Your task to perform on an android device: What's the weather going to be this weekend? Image 0: 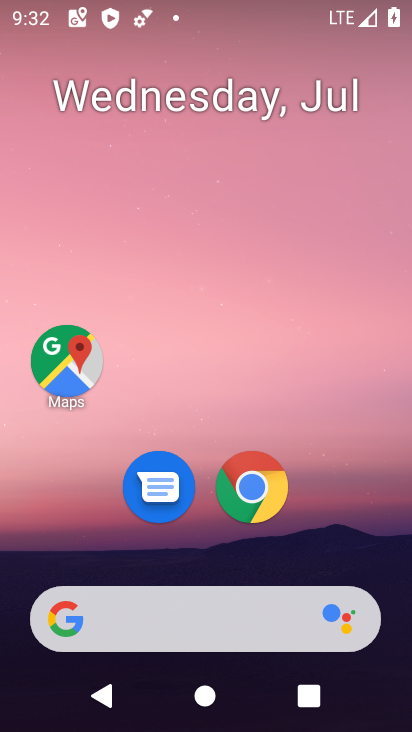
Step 0: drag from (206, 562) to (364, 0)
Your task to perform on an android device: What's the weather going to be this weekend? Image 1: 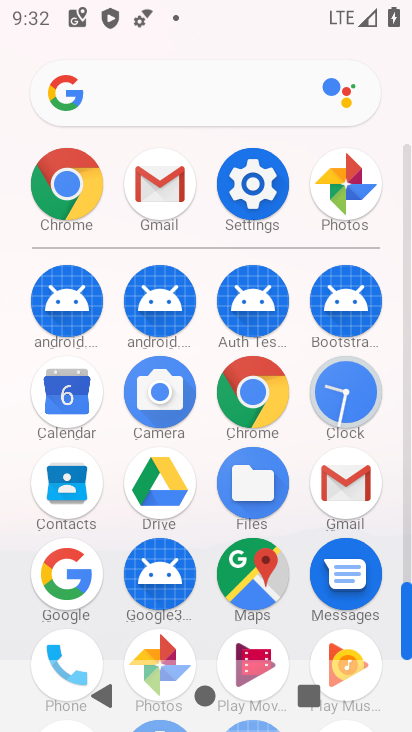
Step 1: click (85, 591)
Your task to perform on an android device: What's the weather going to be this weekend? Image 2: 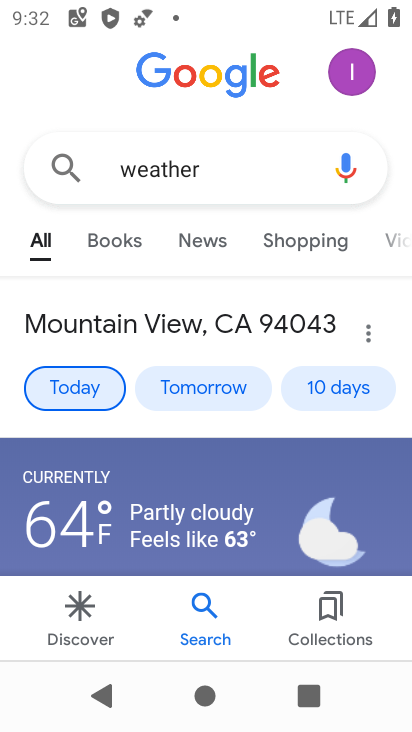
Step 2: click (325, 385)
Your task to perform on an android device: What's the weather going to be this weekend? Image 3: 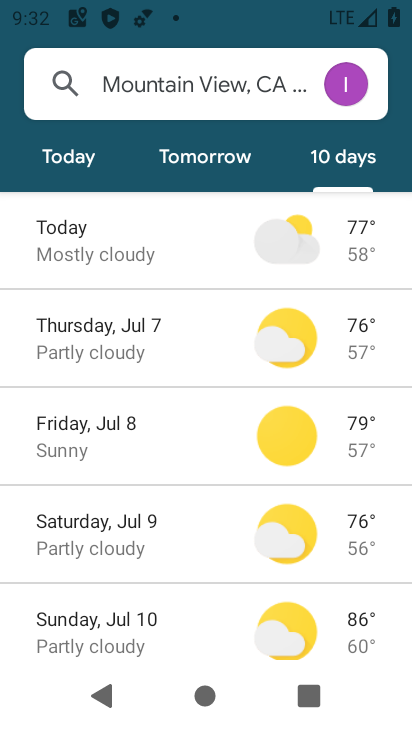
Step 3: task complete